Your task to perform on an android device: change the upload size in google photos Image 0: 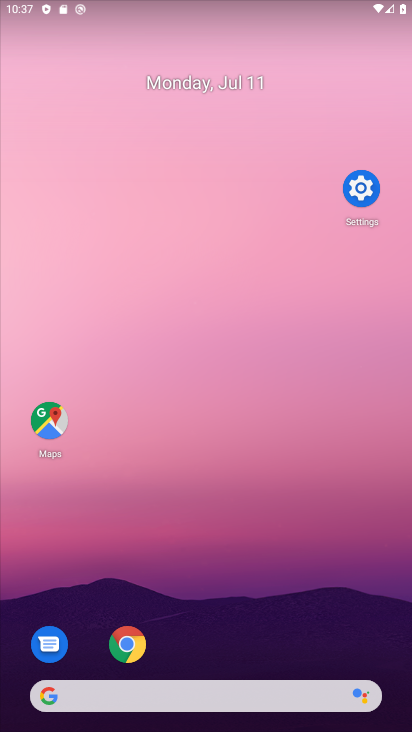
Step 0: drag from (312, 625) to (276, 115)
Your task to perform on an android device: change the upload size in google photos Image 1: 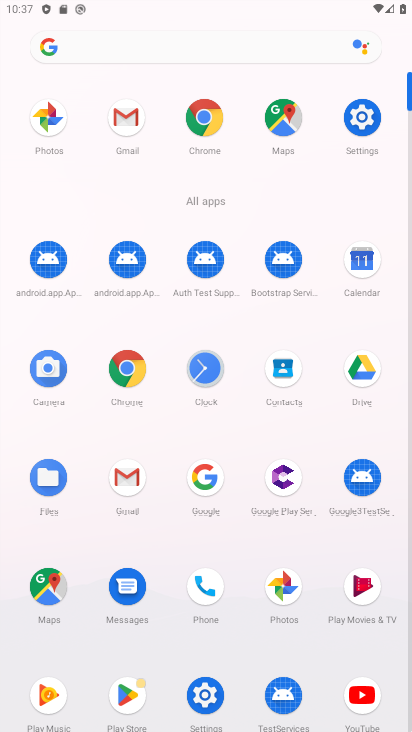
Step 1: drag from (279, 580) to (274, 385)
Your task to perform on an android device: change the upload size in google photos Image 2: 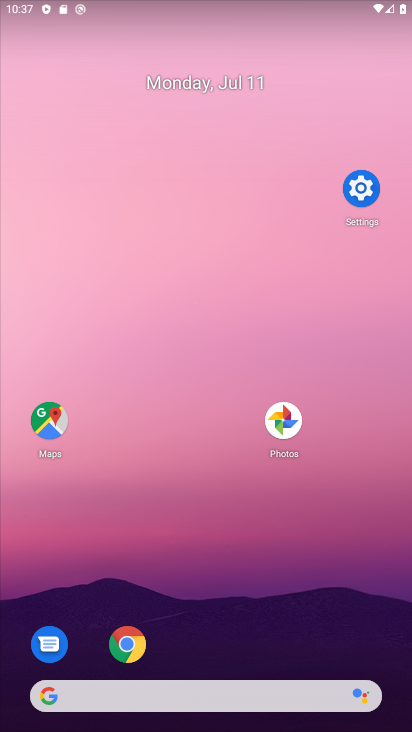
Step 2: click (287, 417)
Your task to perform on an android device: change the upload size in google photos Image 3: 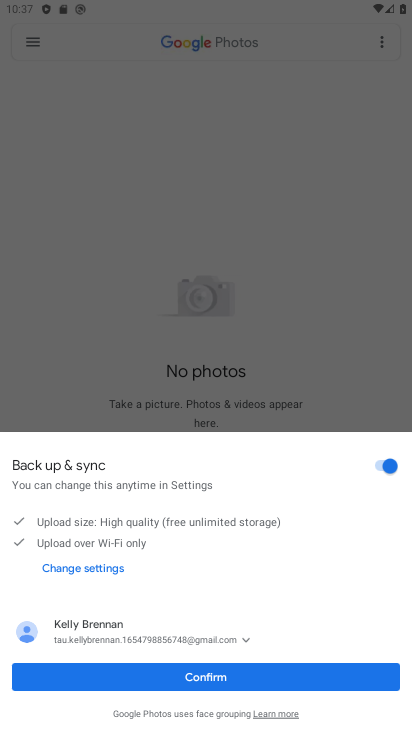
Step 3: click (322, 681)
Your task to perform on an android device: change the upload size in google photos Image 4: 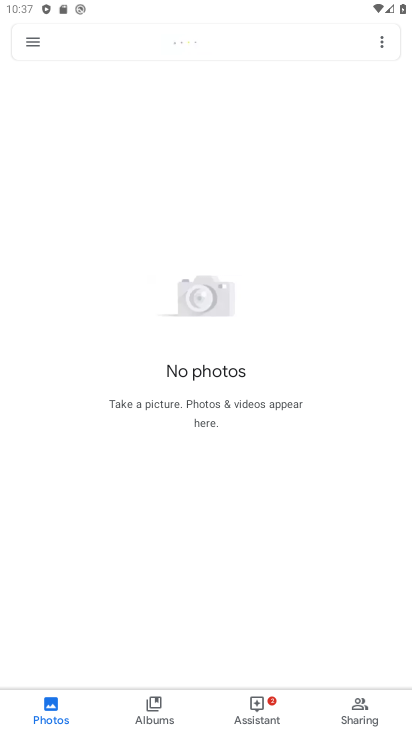
Step 4: click (27, 48)
Your task to perform on an android device: change the upload size in google photos Image 5: 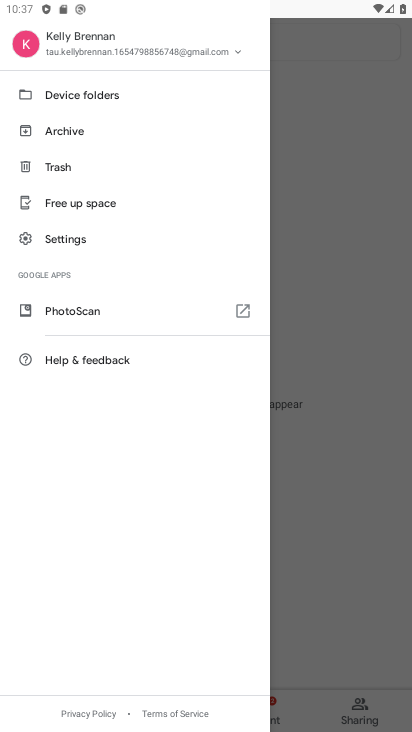
Step 5: click (91, 243)
Your task to perform on an android device: change the upload size in google photos Image 6: 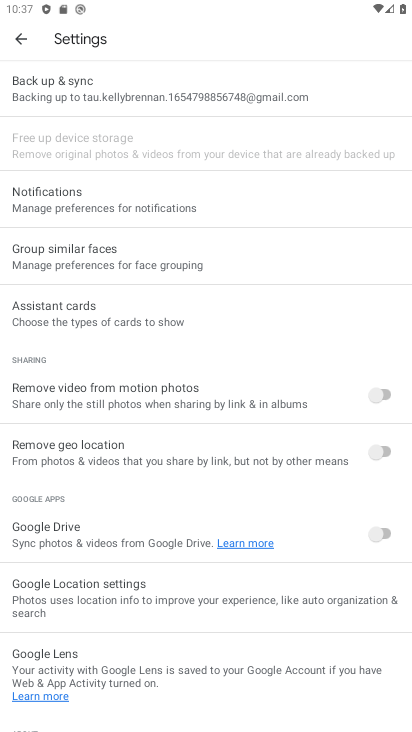
Step 6: click (149, 97)
Your task to perform on an android device: change the upload size in google photos Image 7: 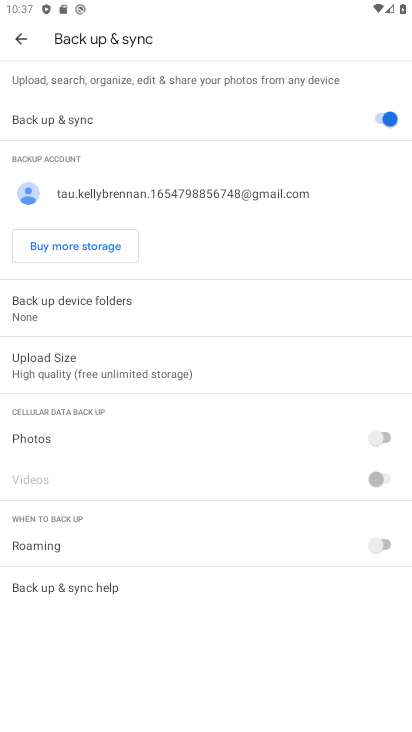
Step 7: click (162, 361)
Your task to perform on an android device: change the upload size in google photos Image 8: 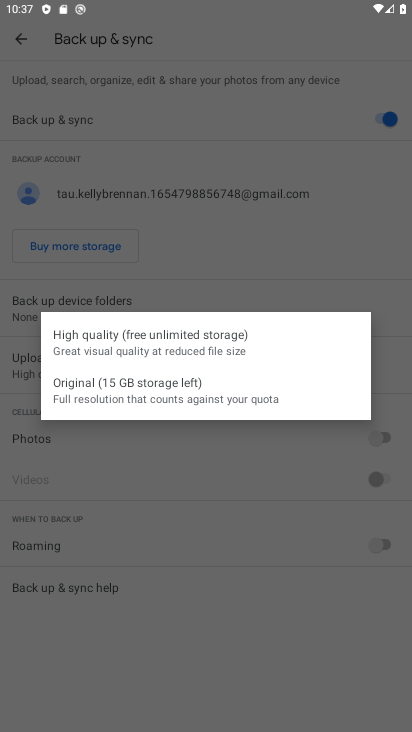
Step 8: click (250, 387)
Your task to perform on an android device: change the upload size in google photos Image 9: 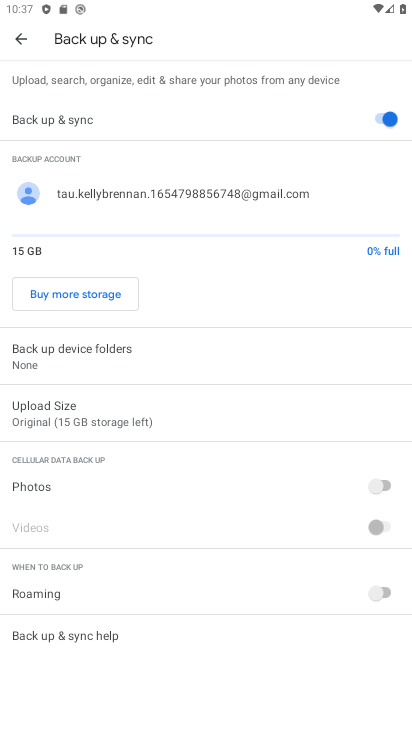
Step 9: task complete